Your task to perform on an android device: see creations saved in the google photos Image 0: 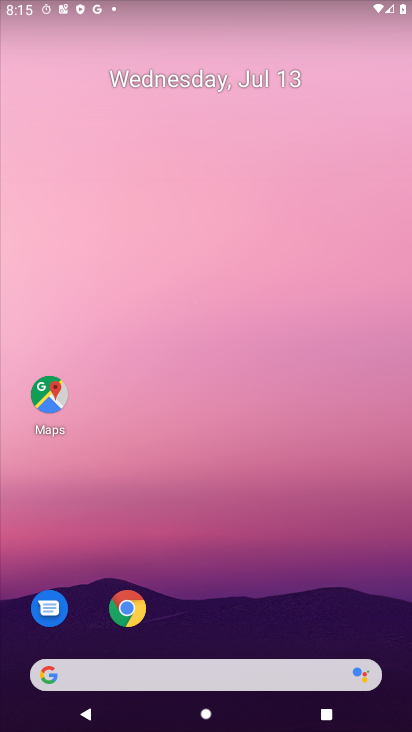
Step 0: click (408, 352)
Your task to perform on an android device: see creations saved in the google photos Image 1: 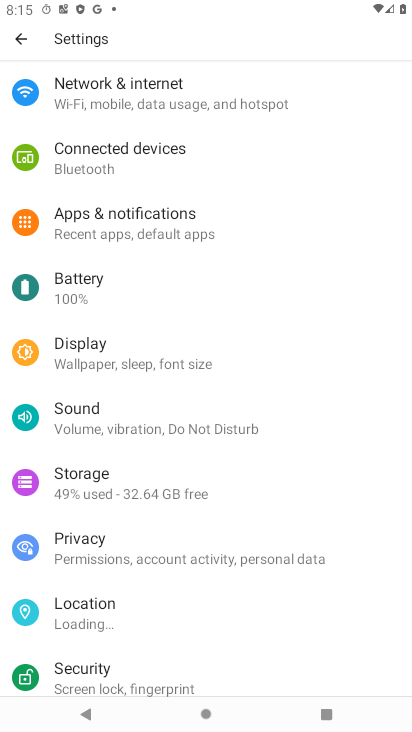
Step 1: click (15, 24)
Your task to perform on an android device: see creations saved in the google photos Image 2: 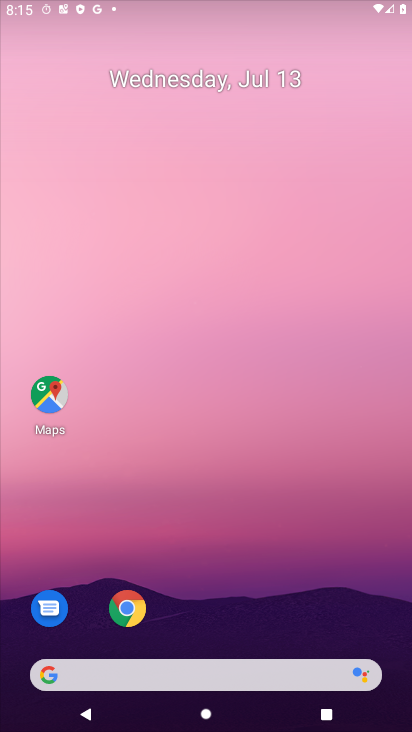
Step 2: drag from (226, 579) to (156, 127)
Your task to perform on an android device: see creations saved in the google photos Image 3: 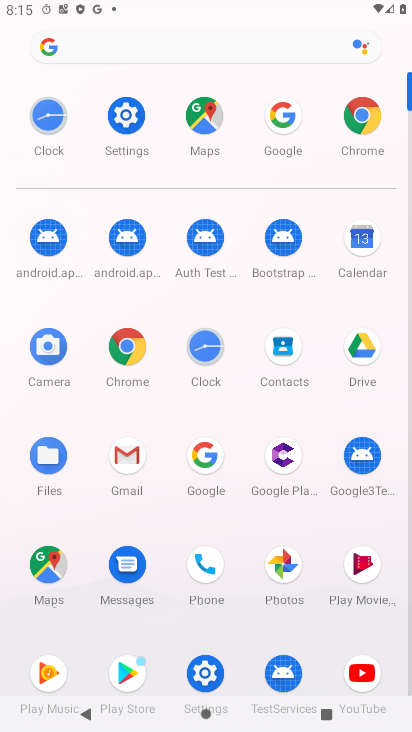
Step 3: drag from (262, 630) to (246, 182)
Your task to perform on an android device: see creations saved in the google photos Image 4: 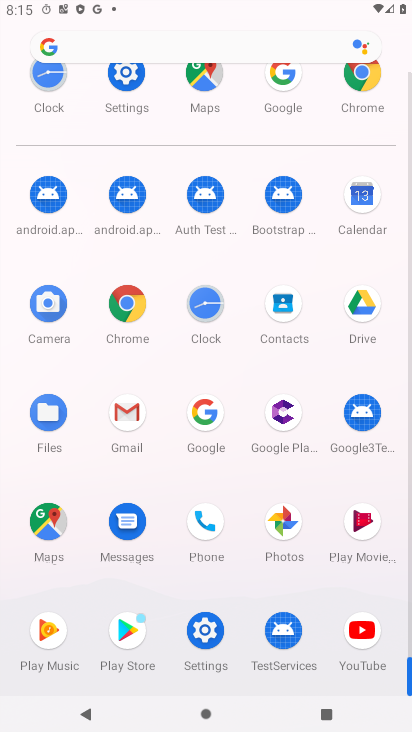
Step 4: click (281, 513)
Your task to perform on an android device: see creations saved in the google photos Image 5: 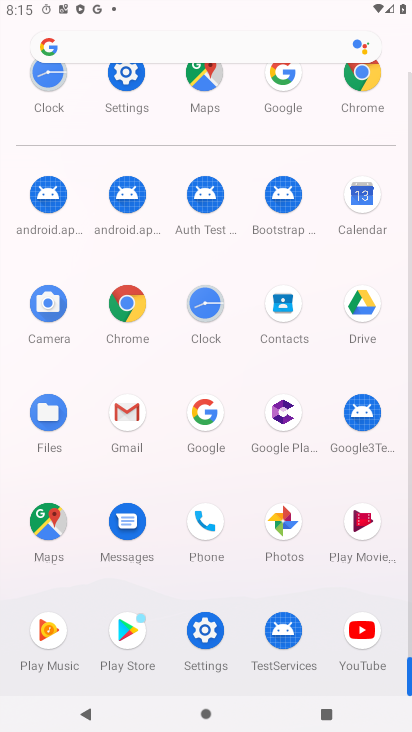
Step 5: click (281, 512)
Your task to perform on an android device: see creations saved in the google photos Image 6: 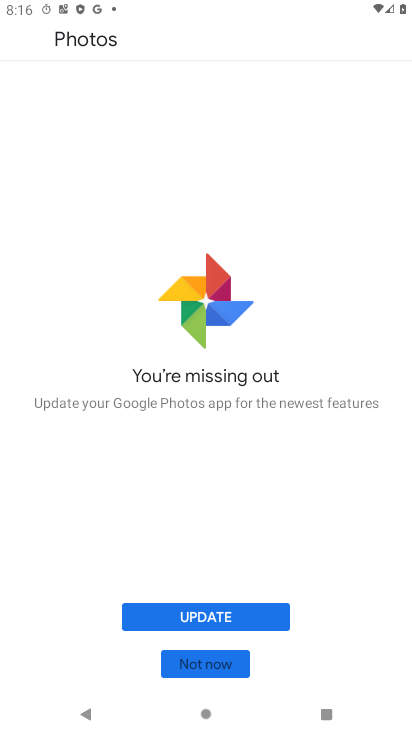
Step 6: click (201, 652)
Your task to perform on an android device: see creations saved in the google photos Image 7: 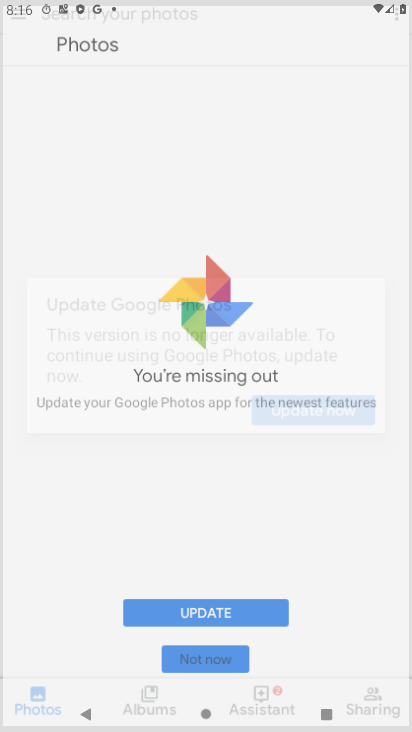
Step 7: click (210, 662)
Your task to perform on an android device: see creations saved in the google photos Image 8: 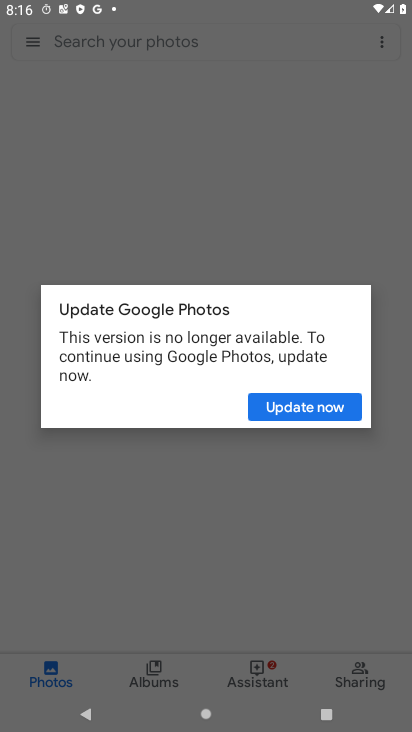
Step 8: click (212, 661)
Your task to perform on an android device: see creations saved in the google photos Image 9: 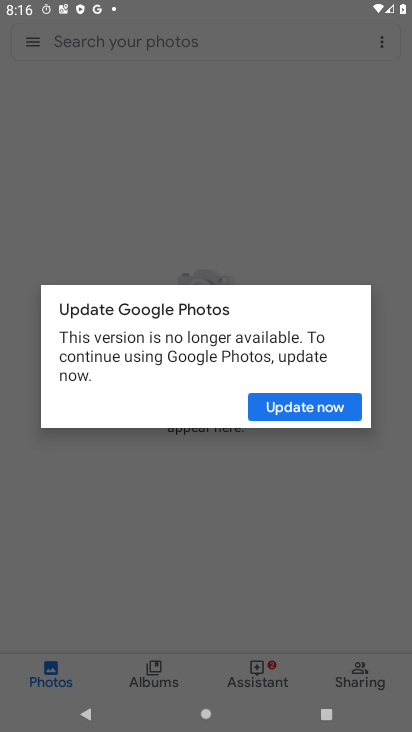
Step 9: click (298, 410)
Your task to perform on an android device: see creations saved in the google photos Image 10: 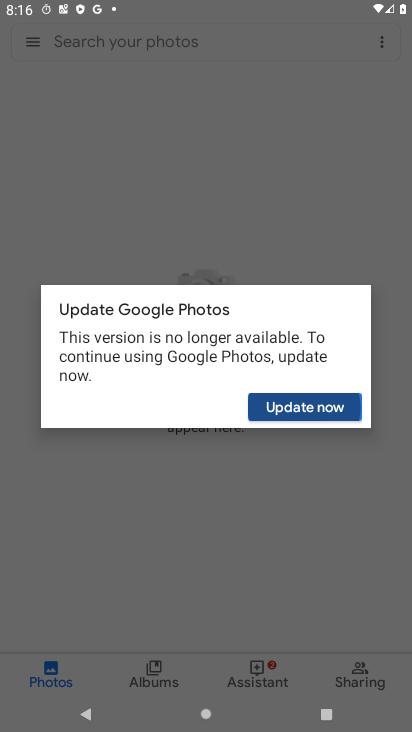
Step 10: click (298, 409)
Your task to perform on an android device: see creations saved in the google photos Image 11: 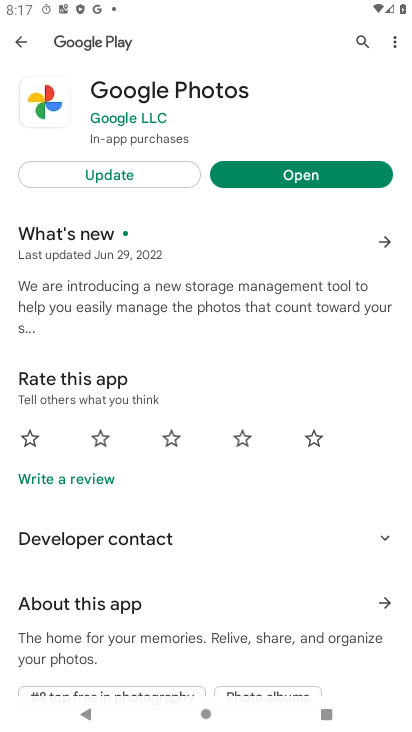
Step 11: click (318, 181)
Your task to perform on an android device: see creations saved in the google photos Image 12: 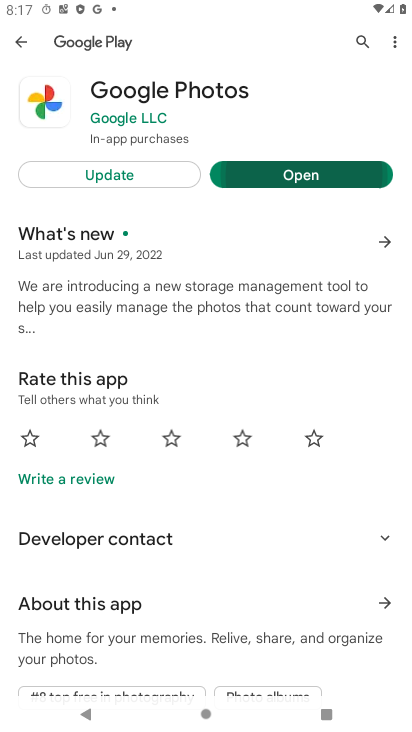
Step 12: click (313, 177)
Your task to perform on an android device: see creations saved in the google photos Image 13: 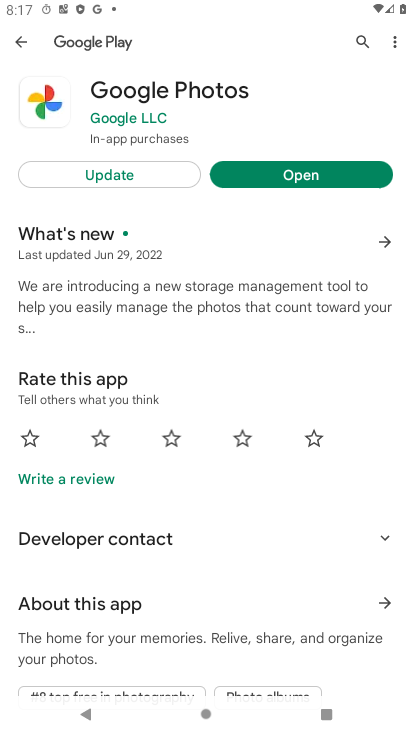
Step 13: click (313, 174)
Your task to perform on an android device: see creations saved in the google photos Image 14: 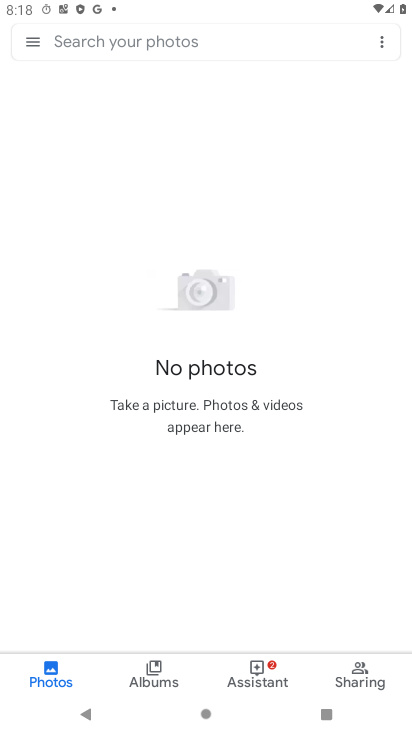
Step 14: task complete